Your task to perform on an android device: Open the web browser Image 0: 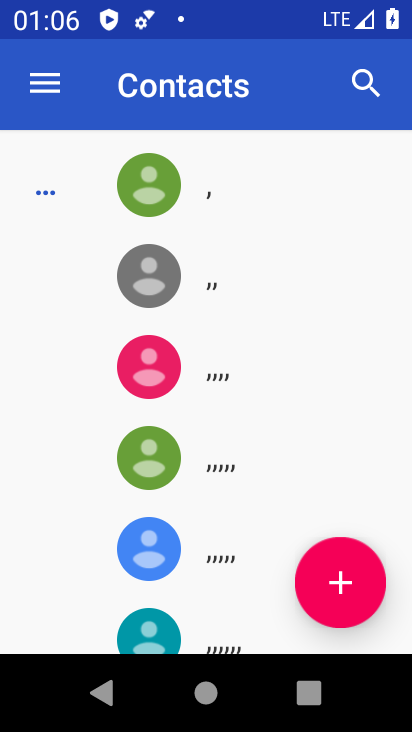
Step 0: press home button
Your task to perform on an android device: Open the web browser Image 1: 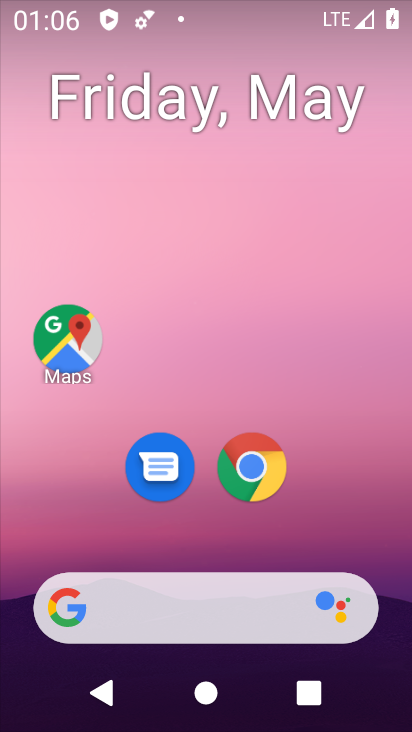
Step 1: drag from (267, 587) to (269, 206)
Your task to perform on an android device: Open the web browser Image 2: 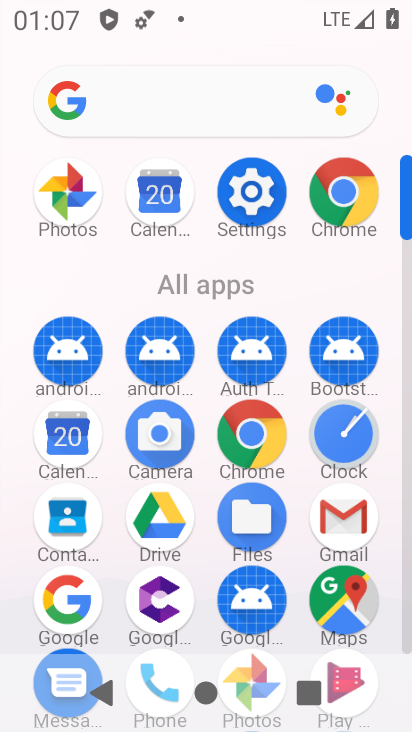
Step 2: click (332, 210)
Your task to perform on an android device: Open the web browser Image 3: 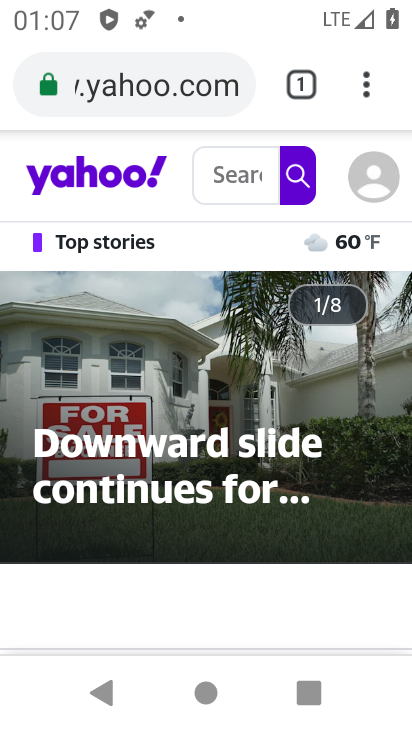
Step 3: click (148, 91)
Your task to perform on an android device: Open the web browser Image 4: 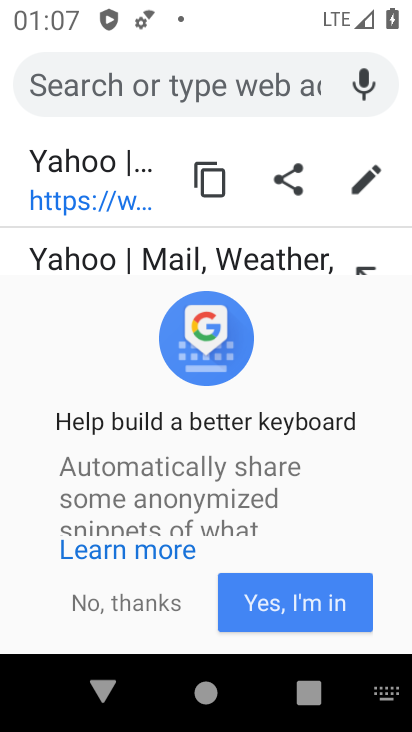
Step 4: click (149, 592)
Your task to perform on an android device: Open the web browser Image 5: 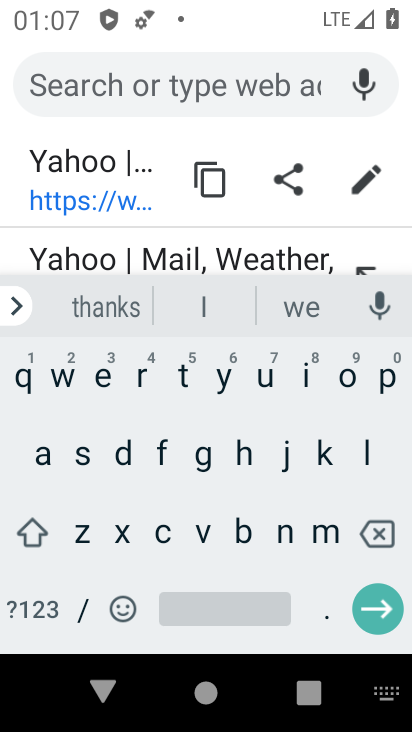
Step 5: task complete